Your task to perform on an android device: Go to eBay Image 0: 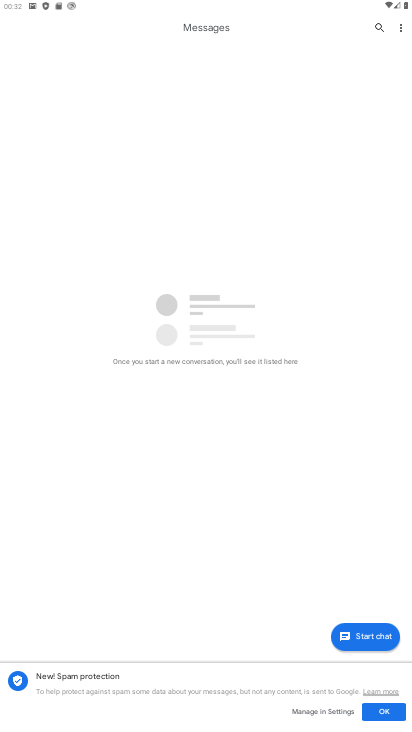
Step 0: press home button
Your task to perform on an android device: Go to eBay Image 1: 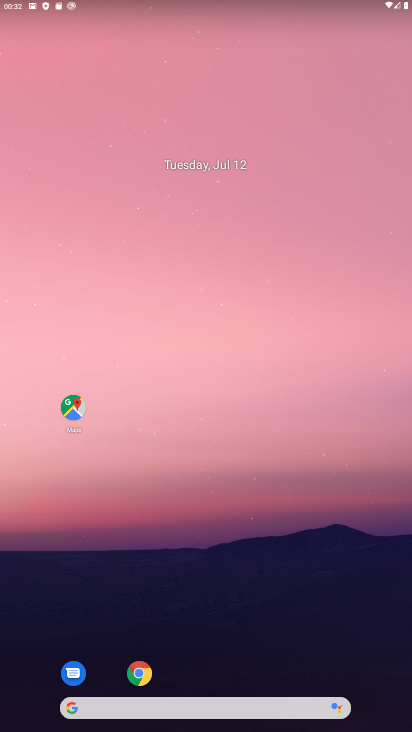
Step 1: press home button
Your task to perform on an android device: Go to eBay Image 2: 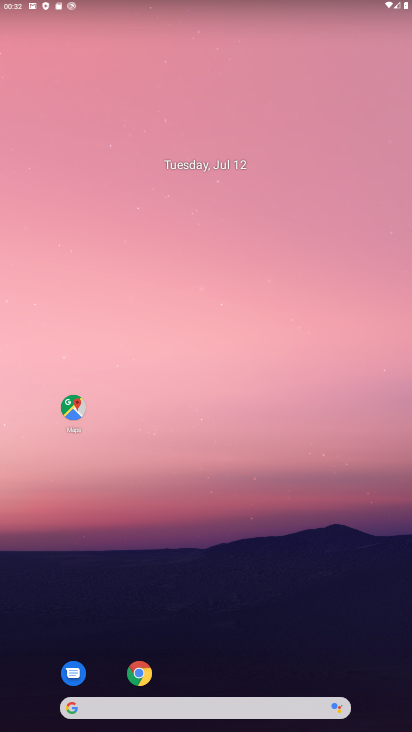
Step 2: click (153, 702)
Your task to perform on an android device: Go to eBay Image 3: 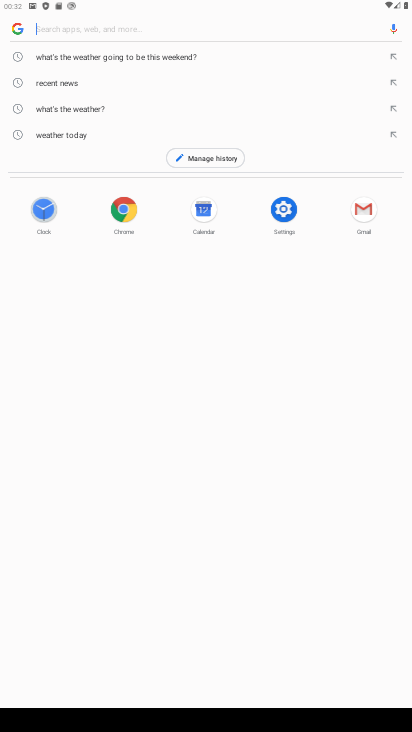
Step 3: type " eBay"
Your task to perform on an android device: Go to eBay Image 4: 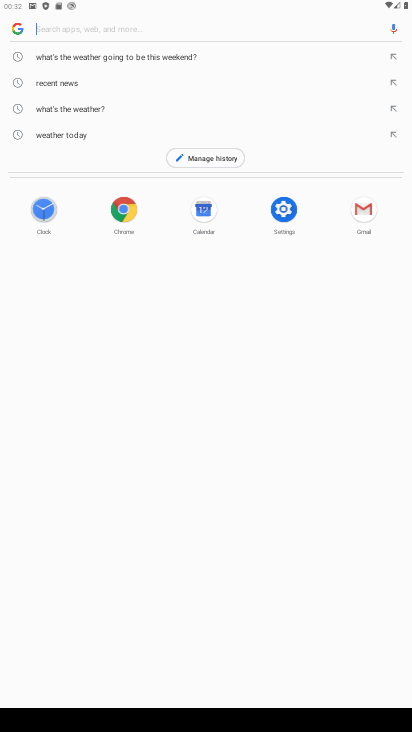
Step 4: click (60, 29)
Your task to perform on an android device: Go to eBay Image 5: 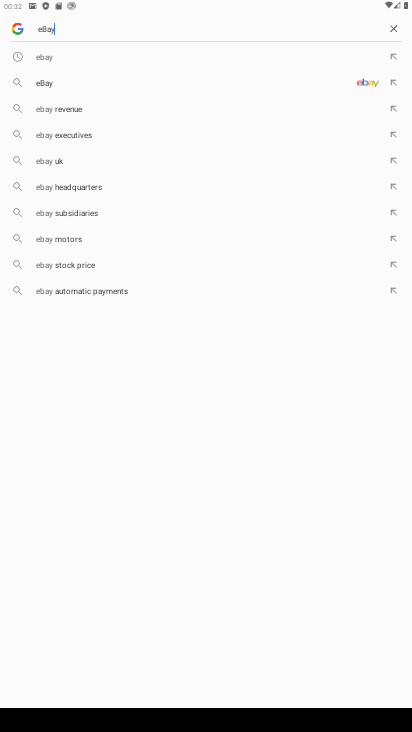
Step 5: click (371, 85)
Your task to perform on an android device: Go to eBay Image 6: 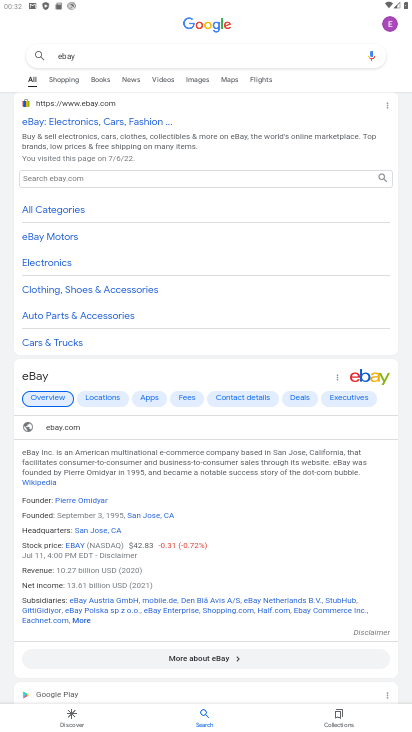
Step 6: click (56, 119)
Your task to perform on an android device: Go to eBay Image 7: 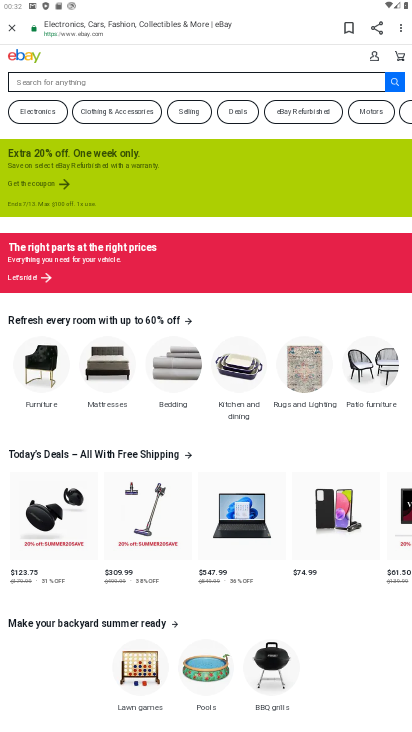
Step 7: task complete